Your task to perform on an android device: Go to notification settings Image 0: 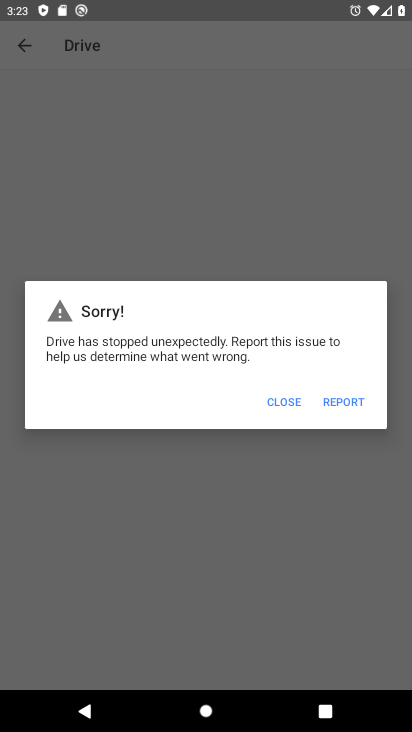
Step 0: click (41, 659)
Your task to perform on an android device: Go to notification settings Image 1: 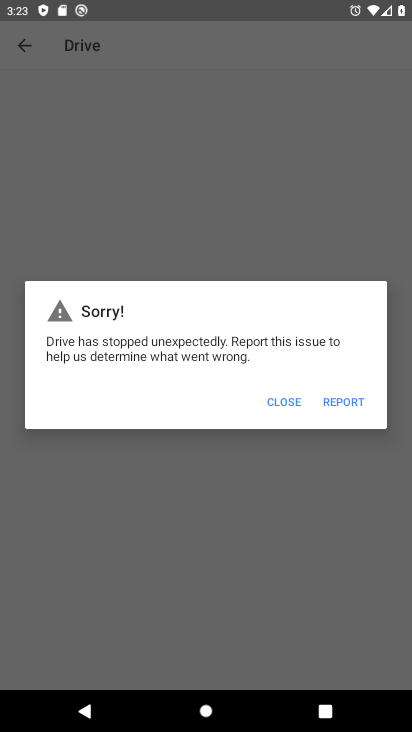
Step 1: press home button
Your task to perform on an android device: Go to notification settings Image 2: 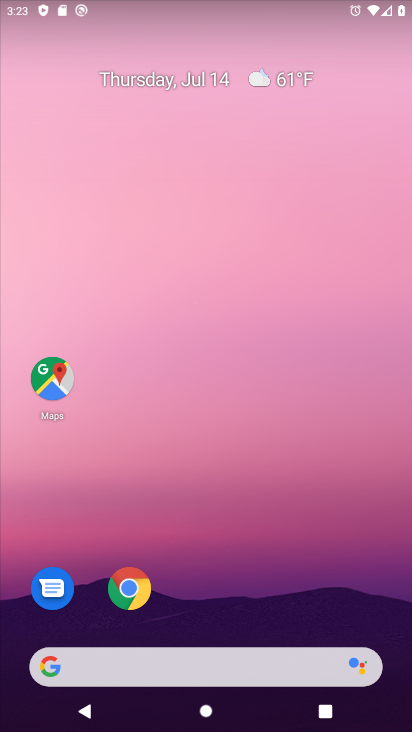
Step 2: drag from (245, 374) to (239, 211)
Your task to perform on an android device: Go to notification settings Image 3: 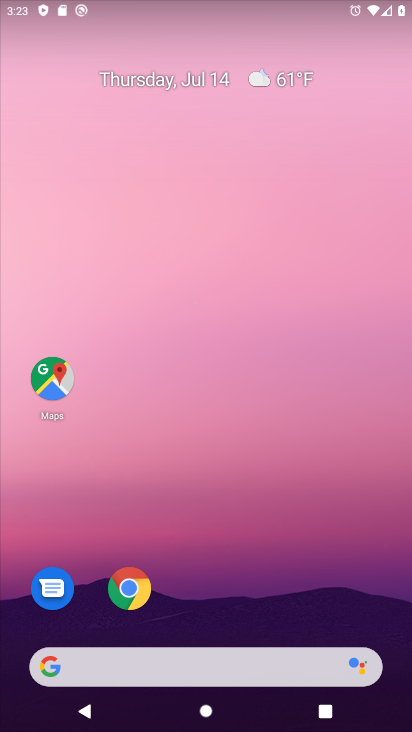
Step 3: drag from (267, 541) to (320, 11)
Your task to perform on an android device: Go to notification settings Image 4: 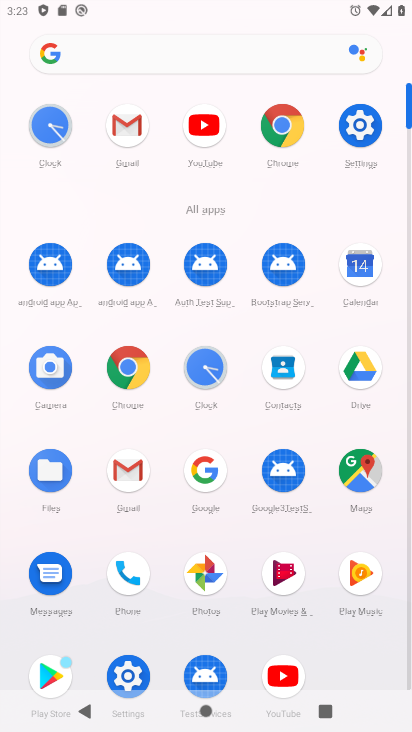
Step 4: click (361, 136)
Your task to perform on an android device: Go to notification settings Image 5: 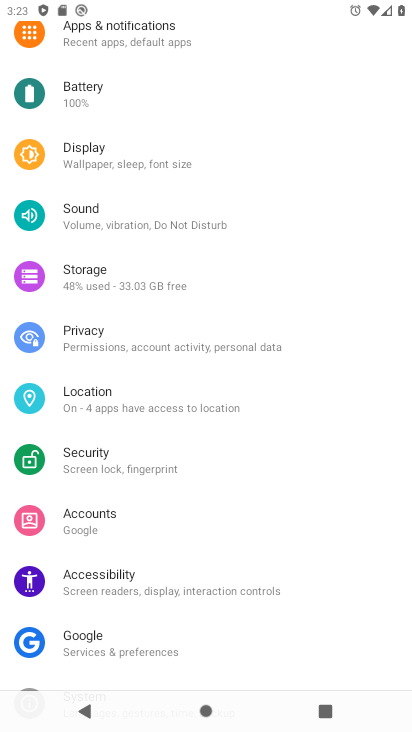
Step 5: click (96, 43)
Your task to perform on an android device: Go to notification settings Image 6: 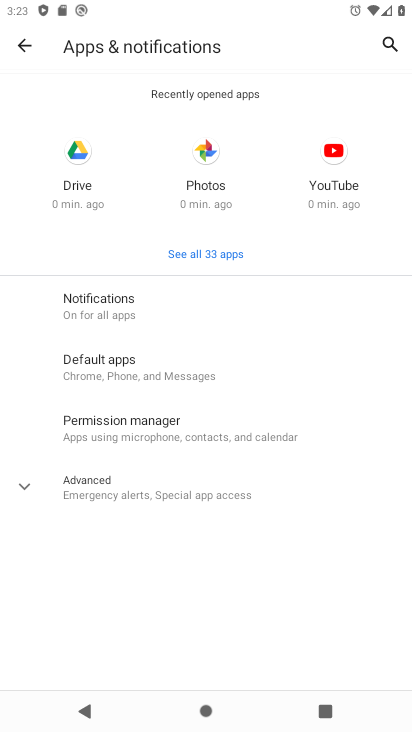
Step 6: click (133, 301)
Your task to perform on an android device: Go to notification settings Image 7: 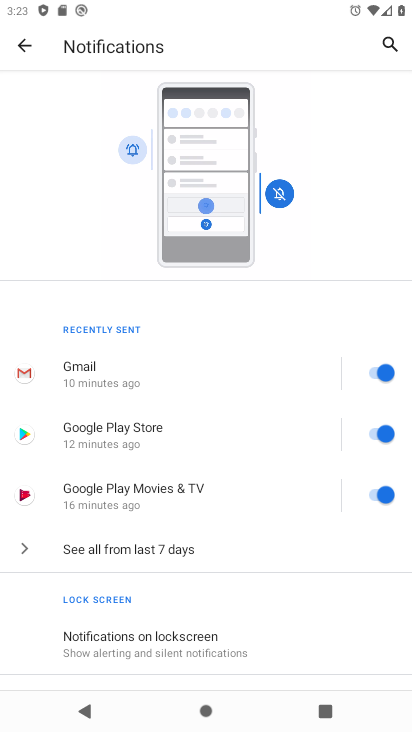
Step 7: task complete